Your task to perform on an android device: What's the weather today? Image 0: 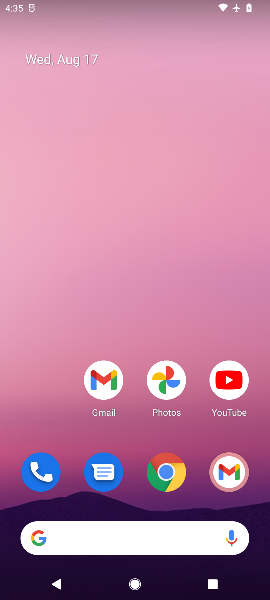
Step 0: click (140, 540)
Your task to perform on an android device: What's the weather today? Image 1: 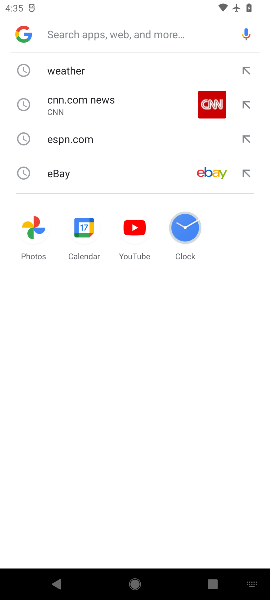
Step 1: click (88, 72)
Your task to perform on an android device: What's the weather today? Image 2: 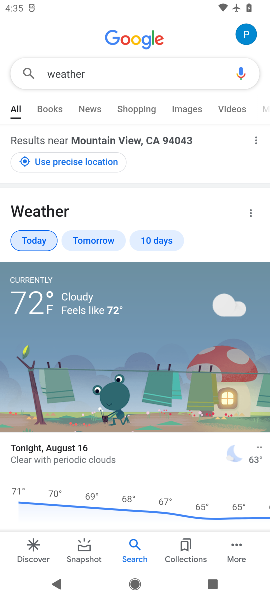
Step 2: task complete